Your task to perform on an android device: turn on bluetooth scan Image 0: 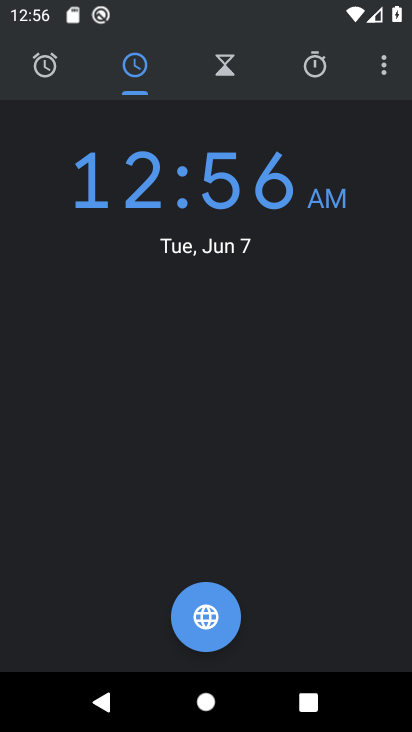
Step 0: press home button
Your task to perform on an android device: turn on bluetooth scan Image 1: 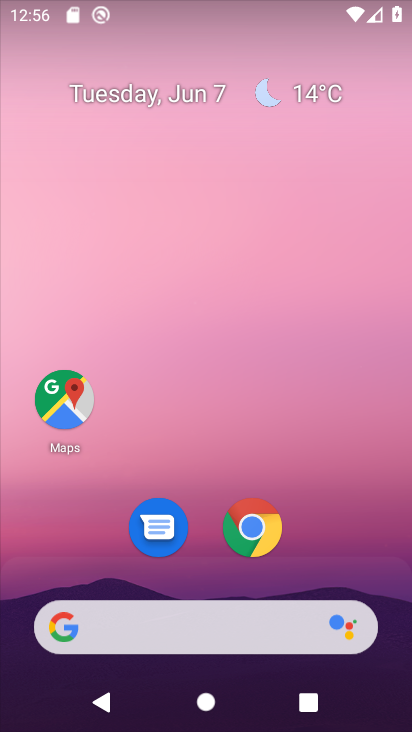
Step 1: drag from (359, 471) to (347, 35)
Your task to perform on an android device: turn on bluetooth scan Image 2: 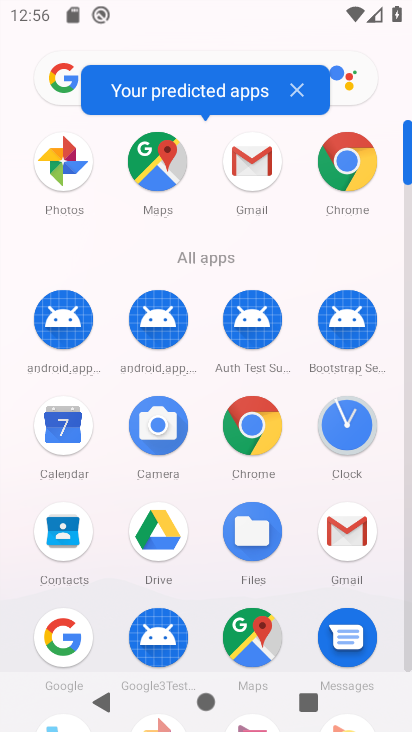
Step 2: drag from (205, 516) to (209, 176)
Your task to perform on an android device: turn on bluetooth scan Image 3: 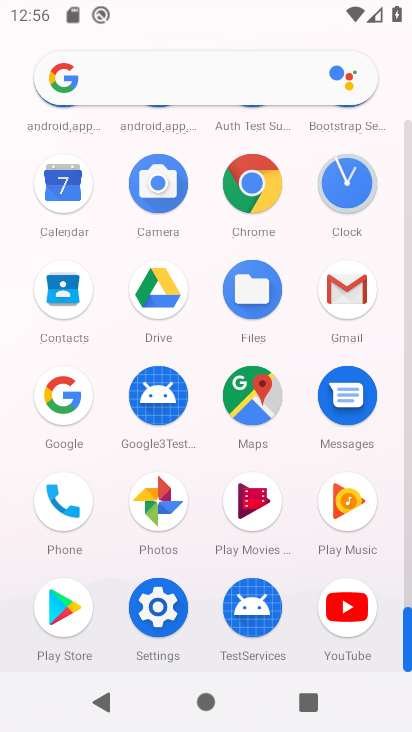
Step 3: click (148, 622)
Your task to perform on an android device: turn on bluetooth scan Image 4: 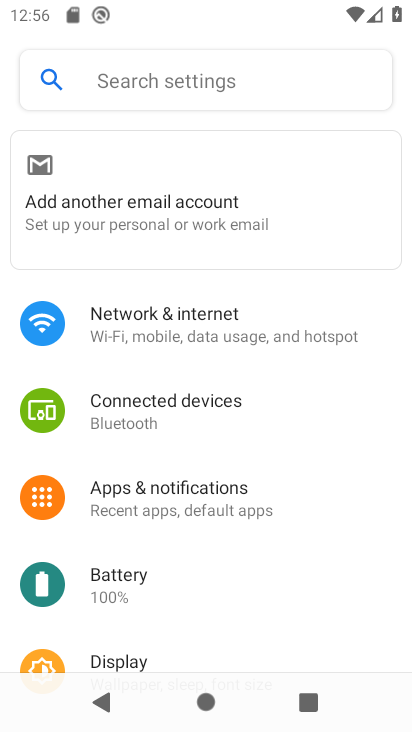
Step 4: drag from (170, 616) to (191, 149)
Your task to perform on an android device: turn on bluetooth scan Image 5: 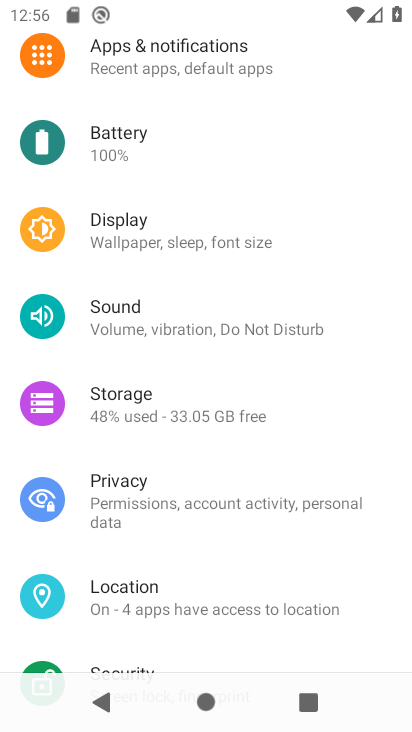
Step 5: click (158, 596)
Your task to perform on an android device: turn on bluetooth scan Image 6: 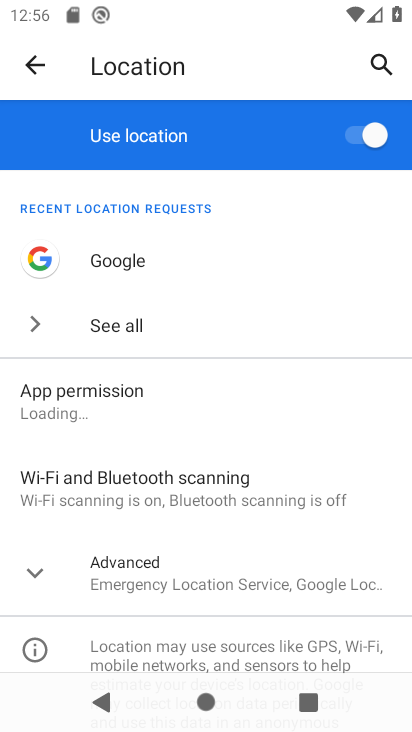
Step 6: task complete